Your task to perform on an android device: set default search engine in the chrome app Image 0: 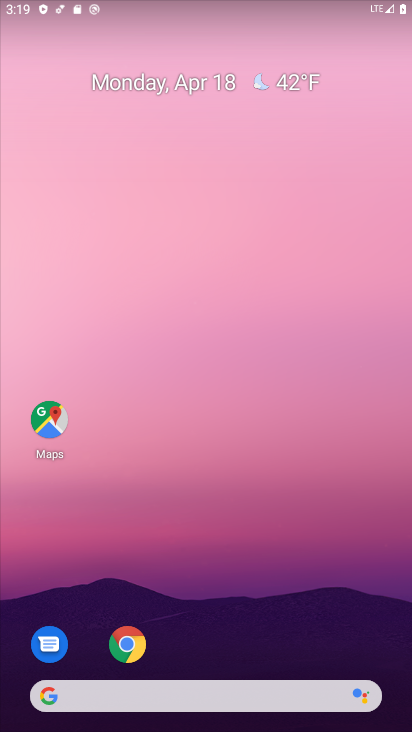
Step 0: click (128, 647)
Your task to perform on an android device: set default search engine in the chrome app Image 1: 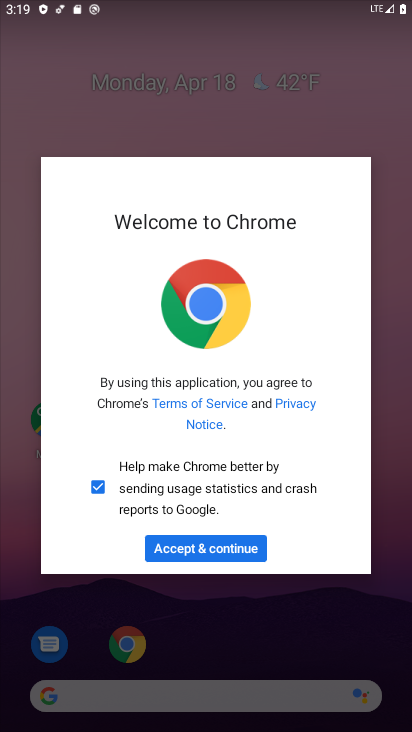
Step 1: click (214, 550)
Your task to perform on an android device: set default search engine in the chrome app Image 2: 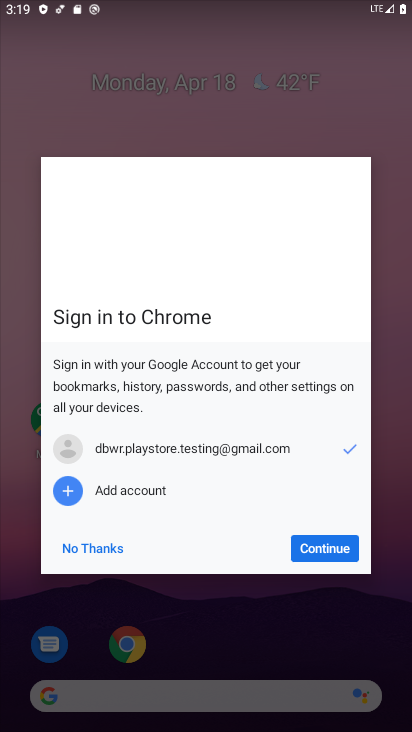
Step 2: click (309, 553)
Your task to perform on an android device: set default search engine in the chrome app Image 3: 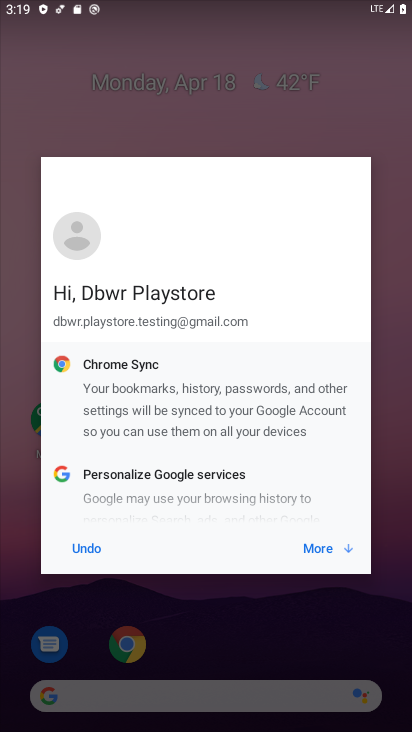
Step 3: click (309, 553)
Your task to perform on an android device: set default search engine in the chrome app Image 4: 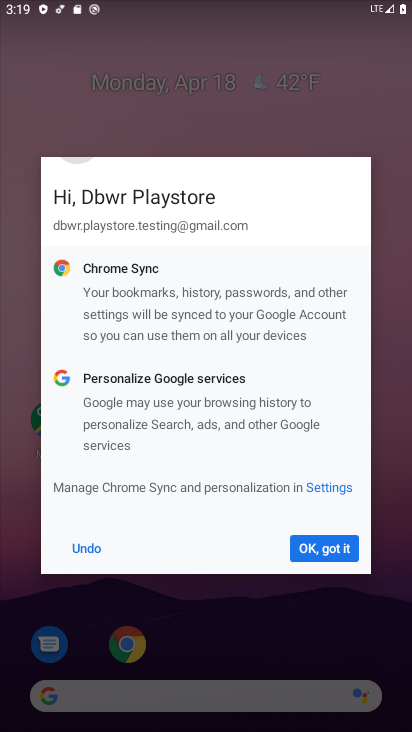
Step 4: click (309, 553)
Your task to perform on an android device: set default search engine in the chrome app Image 5: 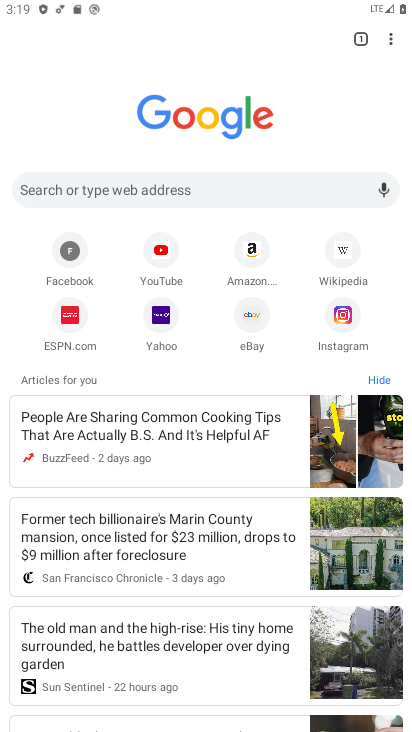
Step 5: click (390, 37)
Your task to perform on an android device: set default search engine in the chrome app Image 6: 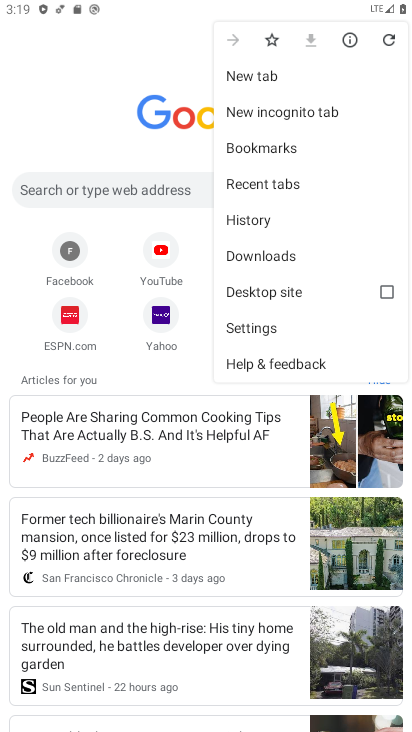
Step 6: click (245, 327)
Your task to perform on an android device: set default search engine in the chrome app Image 7: 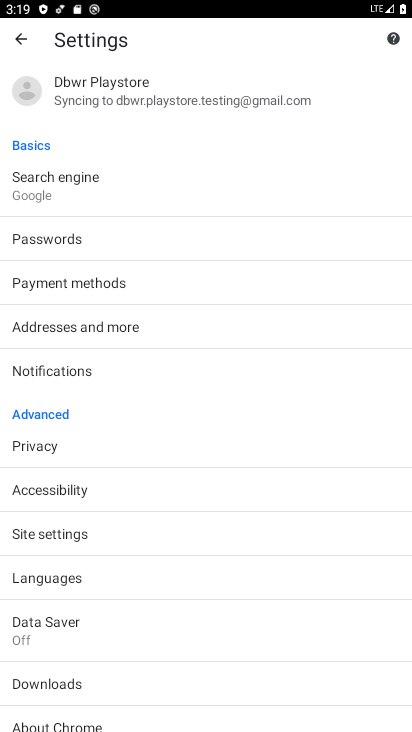
Step 7: click (68, 179)
Your task to perform on an android device: set default search engine in the chrome app Image 8: 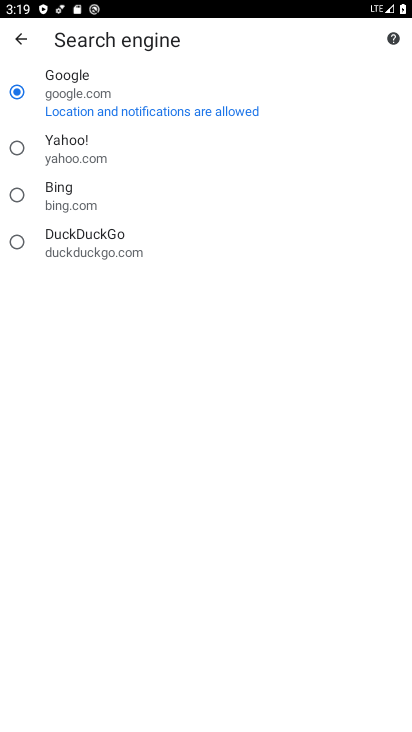
Step 8: click (69, 145)
Your task to perform on an android device: set default search engine in the chrome app Image 9: 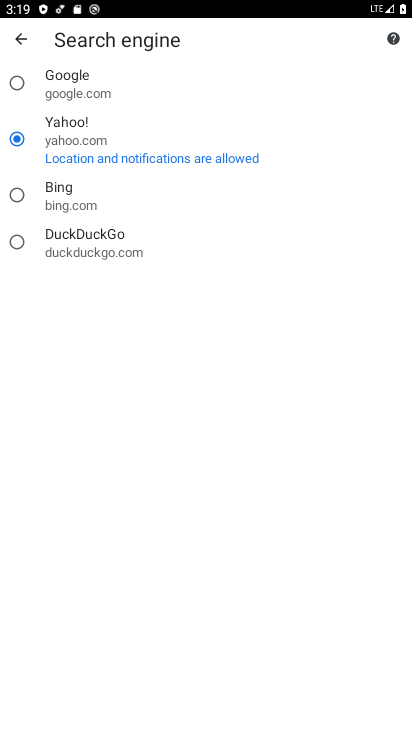
Step 9: task complete